Your task to perform on an android device: clear all cookies in the chrome app Image 0: 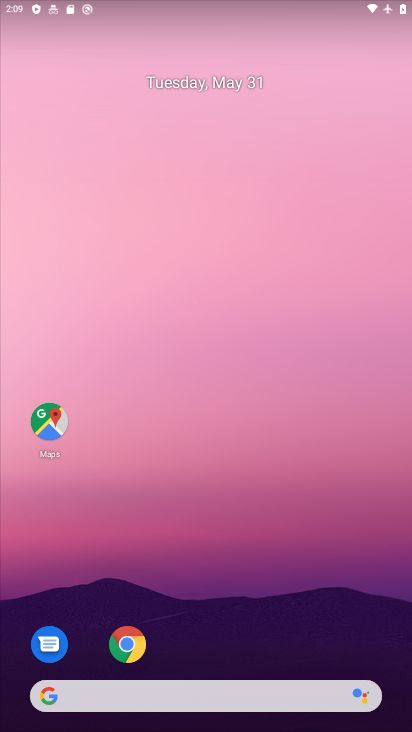
Step 0: drag from (235, 608) to (244, 119)
Your task to perform on an android device: clear all cookies in the chrome app Image 1: 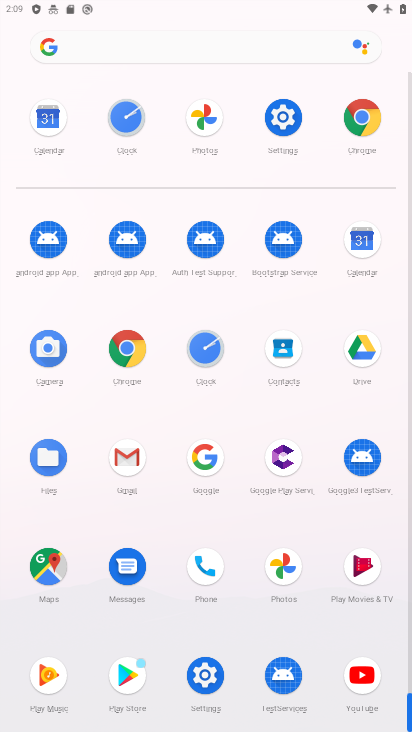
Step 1: click (126, 351)
Your task to perform on an android device: clear all cookies in the chrome app Image 2: 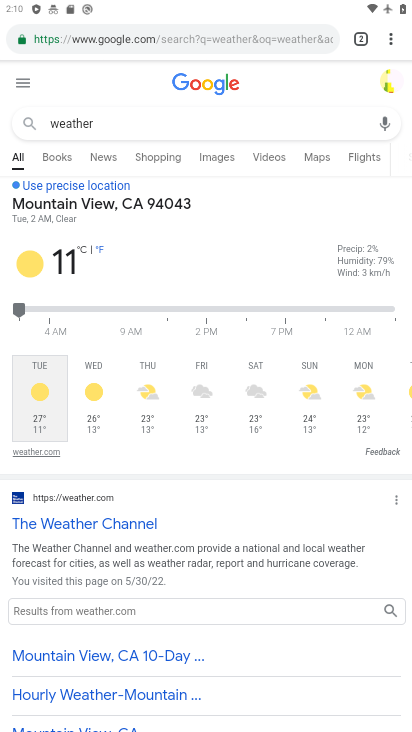
Step 2: drag from (392, 30) to (263, 220)
Your task to perform on an android device: clear all cookies in the chrome app Image 3: 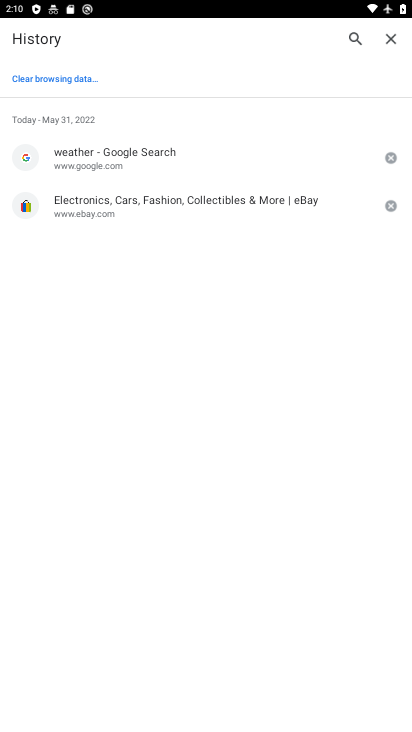
Step 3: click (65, 78)
Your task to perform on an android device: clear all cookies in the chrome app Image 4: 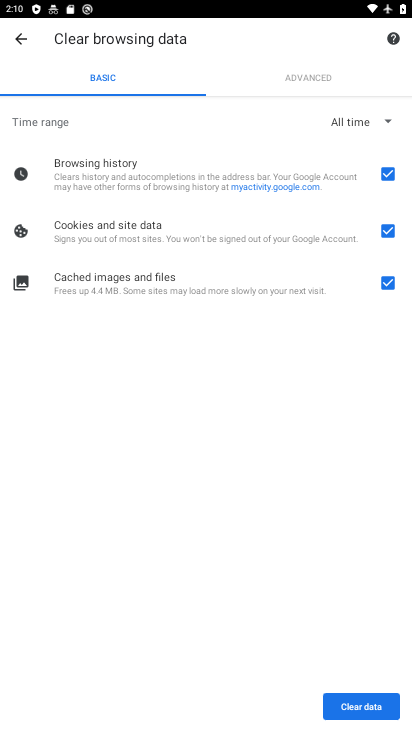
Step 4: click (378, 704)
Your task to perform on an android device: clear all cookies in the chrome app Image 5: 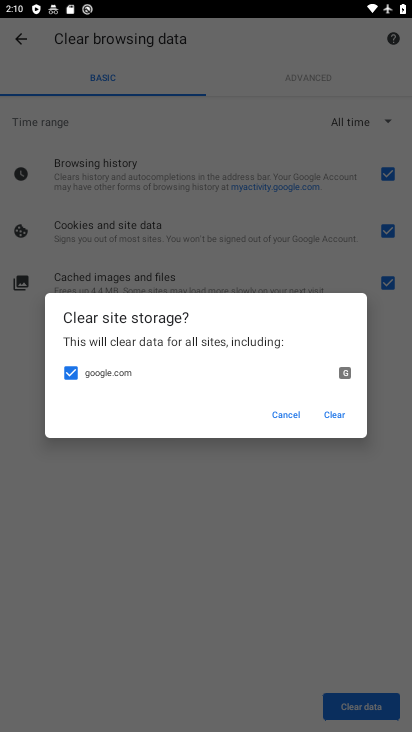
Step 5: click (327, 414)
Your task to perform on an android device: clear all cookies in the chrome app Image 6: 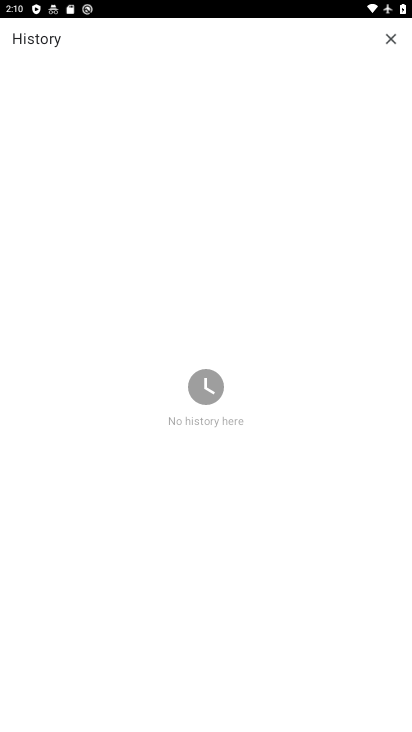
Step 6: task complete